Your task to perform on an android device: check out phone information Image 0: 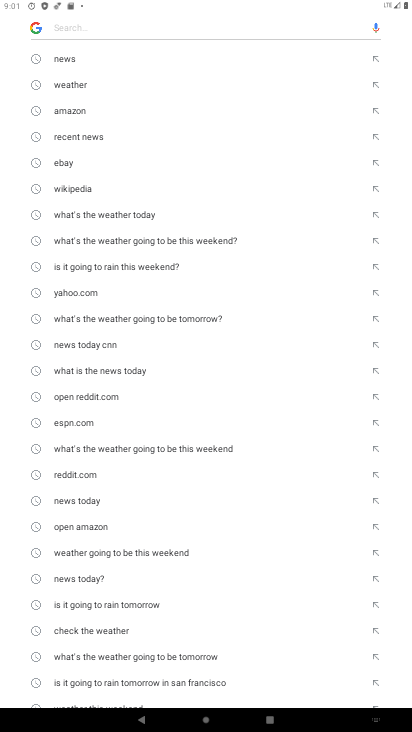
Step 0: press home button
Your task to perform on an android device: check out phone information Image 1: 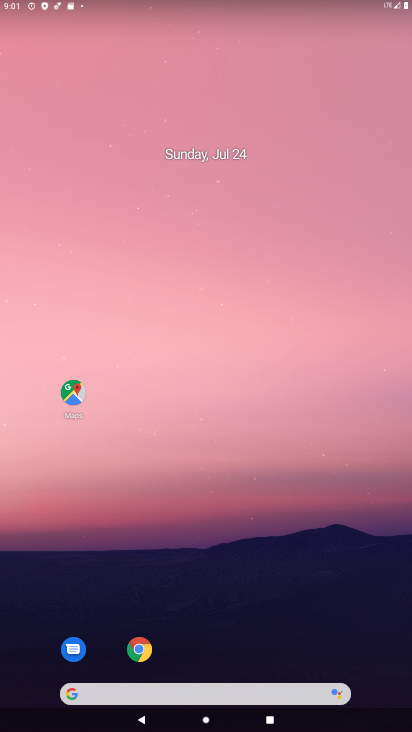
Step 1: drag from (43, 688) to (187, 151)
Your task to perform on an android device: check out phone information Image 2: 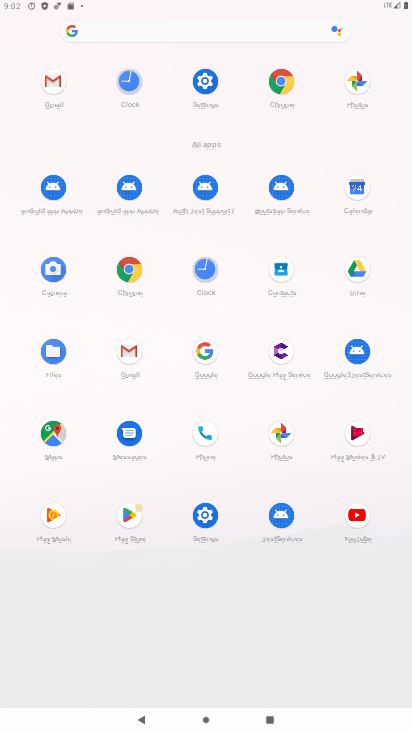
Step 2: click (283, 269)
Your task to perform on an android device: check out phone information Image 3: 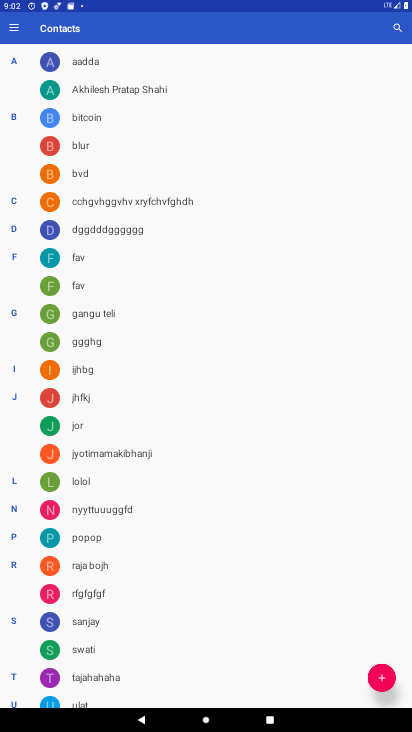
Step 3: task complete